Your task to perform on an android device: clear all cookies in the chrome app Image 0: 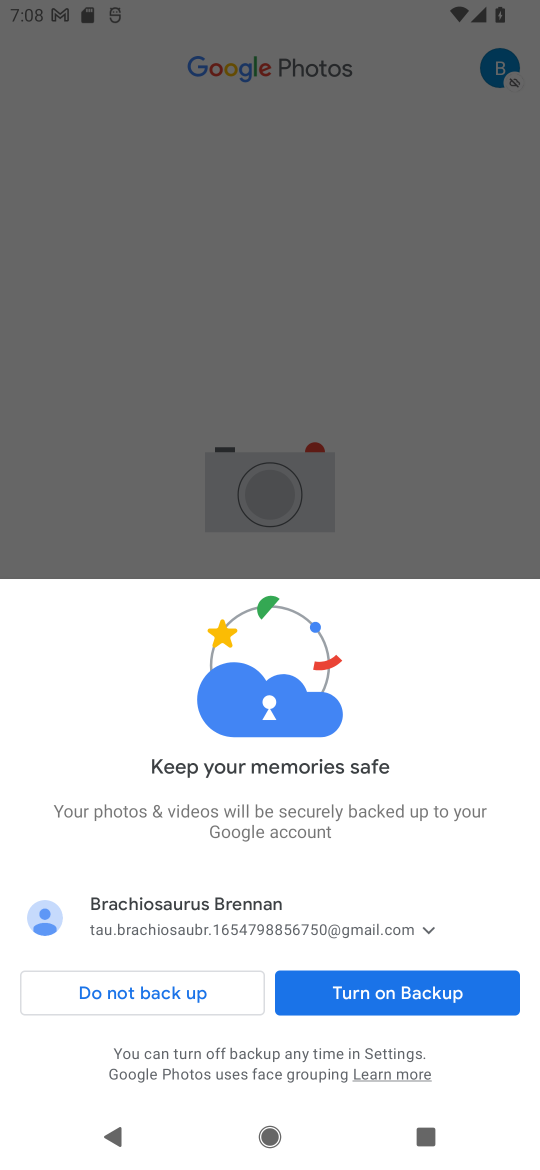
Step 0: press home button
Your task to perform on an android device: clear all cookies in the chrome app Image 1: 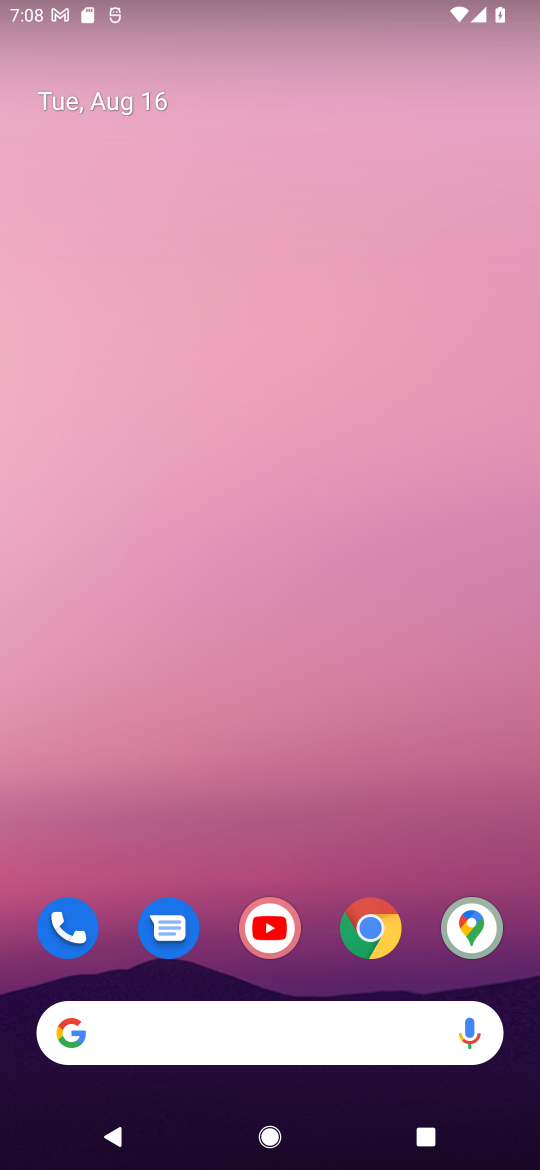
Step 1: click (388, 931)
Your task to perform on an android device: clear all cookies in the chrome app Image 2: 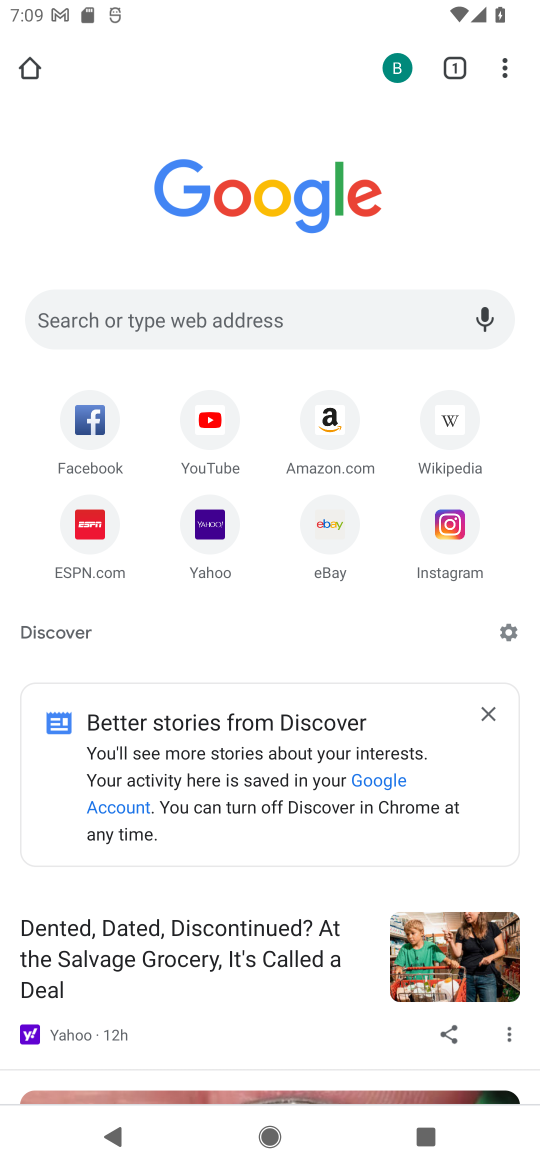
Step 2: drag from (500, 68) to (311, 259)
Your task to perform on an android device: clear all cookies in the chrome app Image 3: 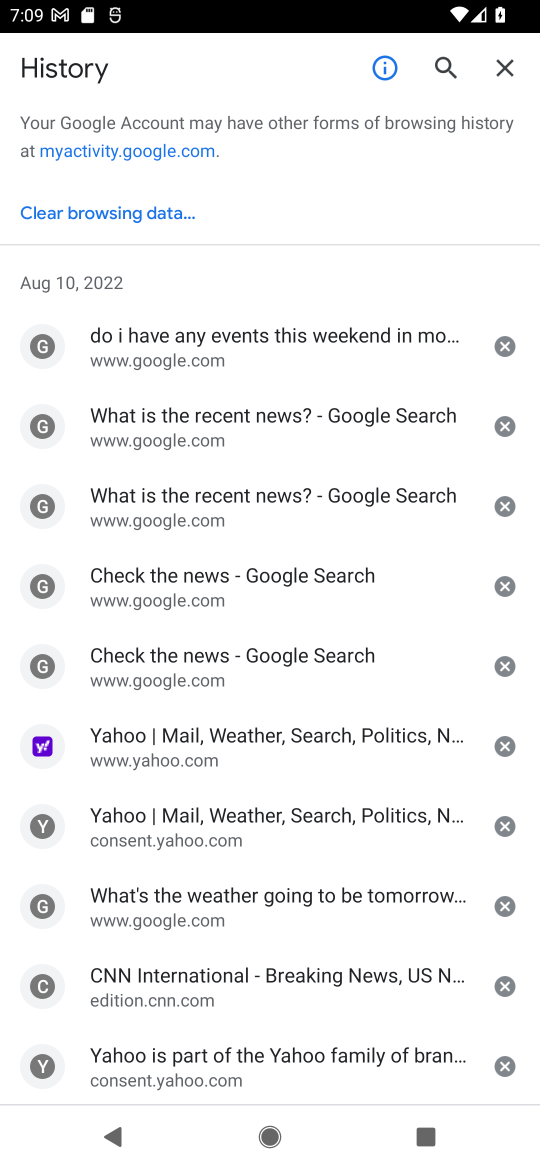
Step 3: click (154, 214)
Your task to perform on an android device: clear all cookies in the chrome app Image 4: 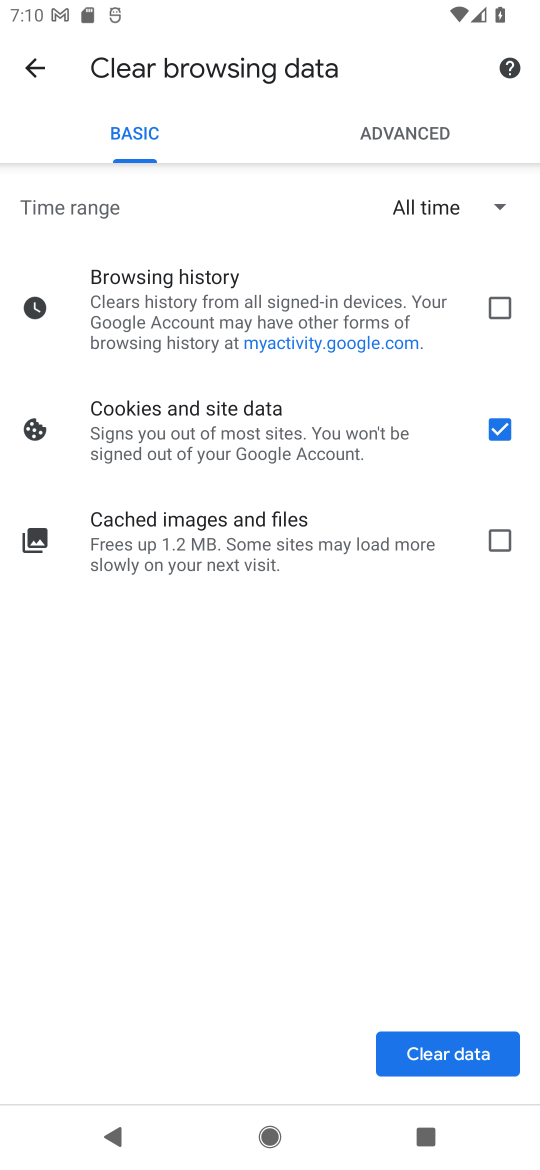
Step 4: click (406, 1054)
Your task to perform on an android device: clear all cookies in the chrome app Image 5: 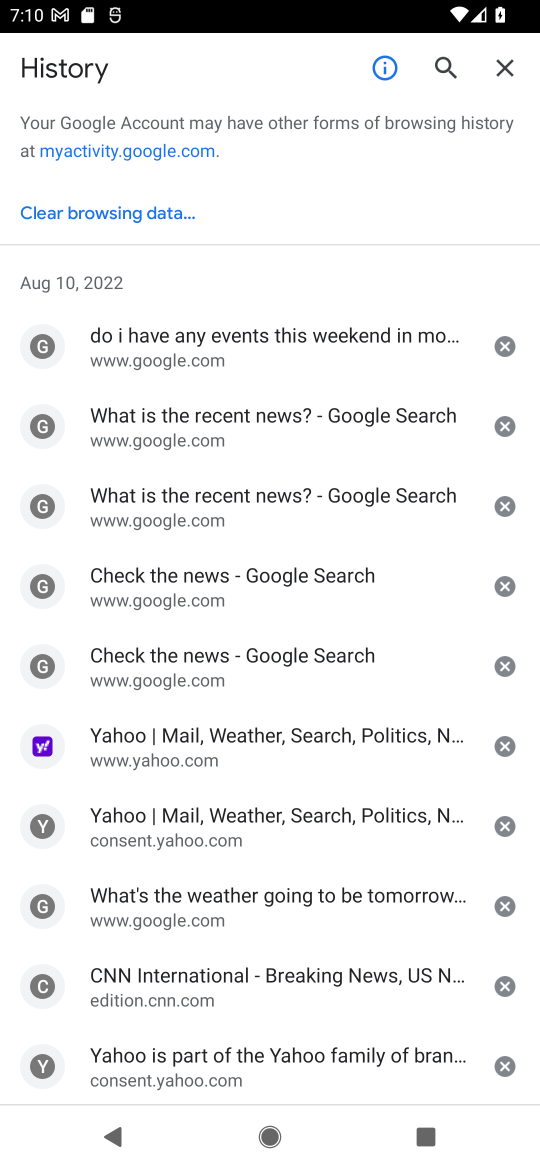
Step 5: task complete